Your task to perform on an android device: add a label to a message in the gmail app Image 0: 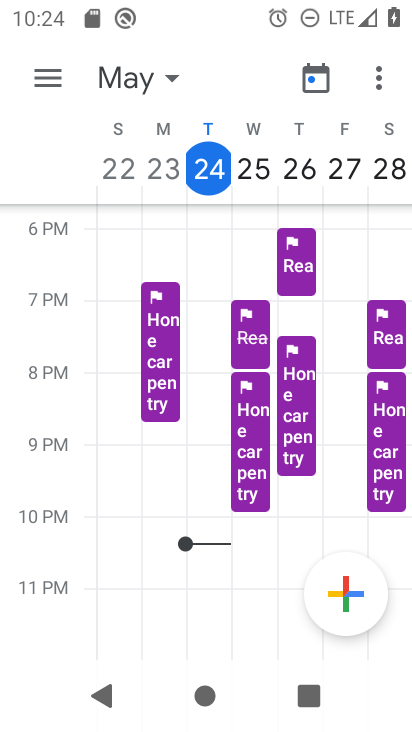
Step 0: press home button
Your task to perform on an android device: add a label to a message in the gmail app Image 1: 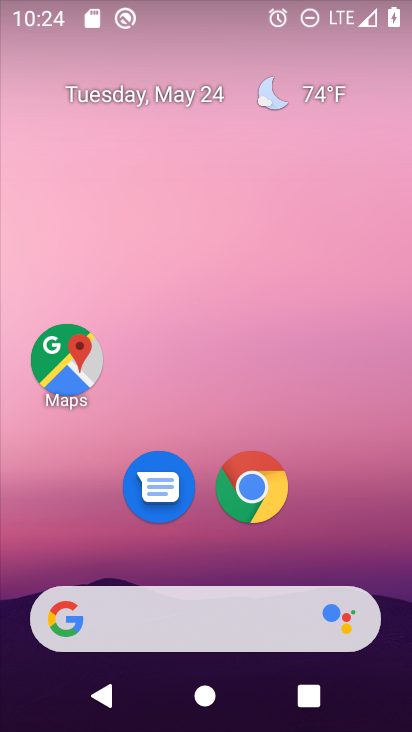
Step 1: drag from (348, 578) to (379, 16)
Your task to perform on an android device: add a label to a message in the gmail app Image 2: 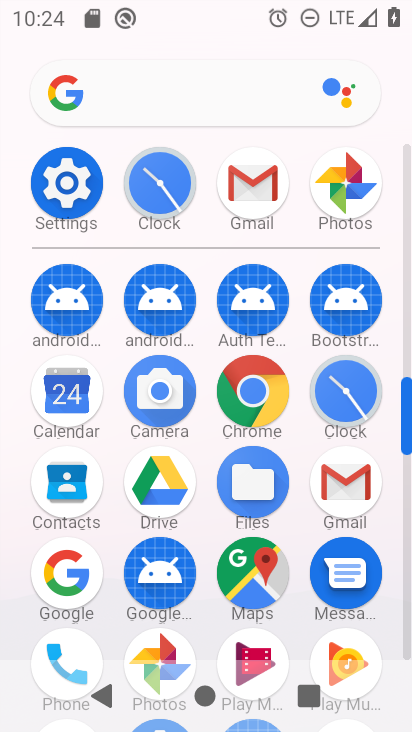
Step 2: click (248, 202)
Your task to perform on an android device: add a label to a message in the gmail app Image 3: 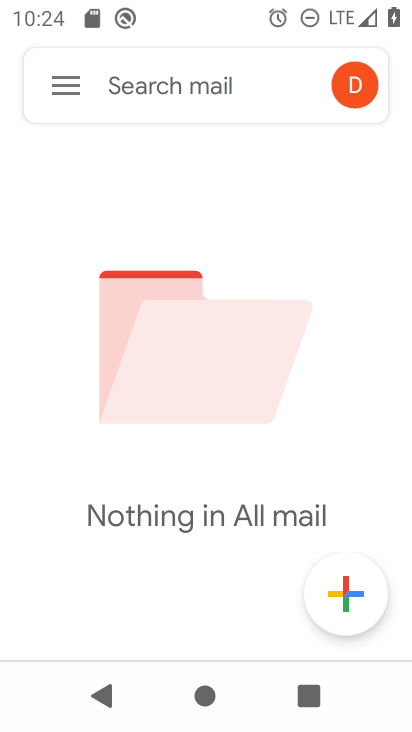
Step 3: task complete